Your task to perform on an android device: Go to eBay Image 0: 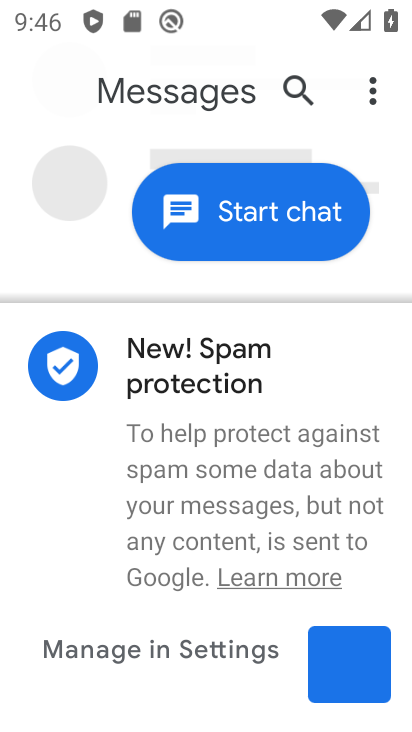
Step 0: press home button
Your task to perform on an android device: Go to eBay Image 1: 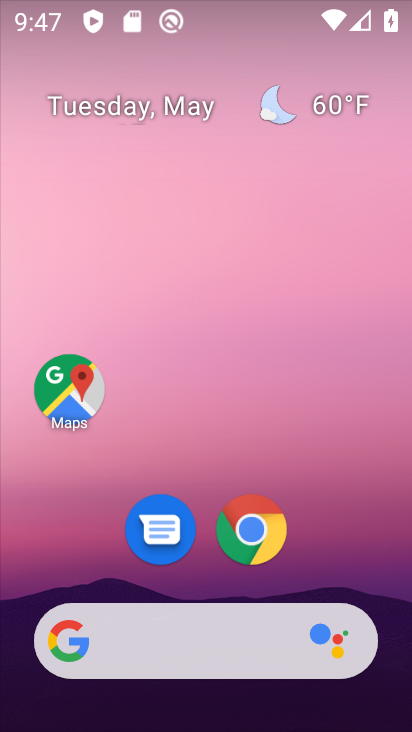
Step 1: click (249, 525)
Your task to perform on an android device: Go to eBay Image 2: 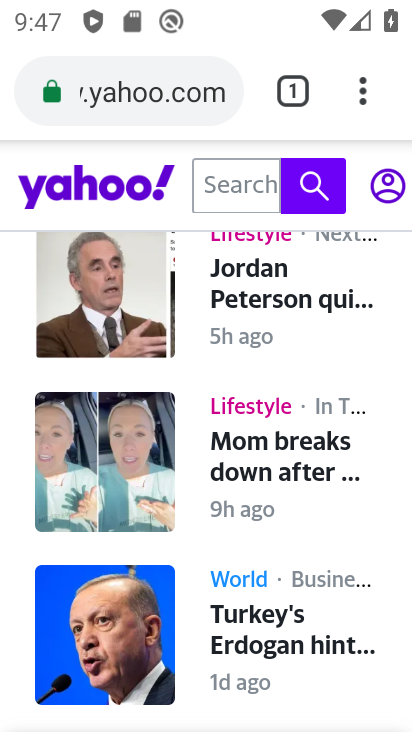
Step 2: click (284, 92)
Your task to perform on an android device: Go to eBay Image 3: 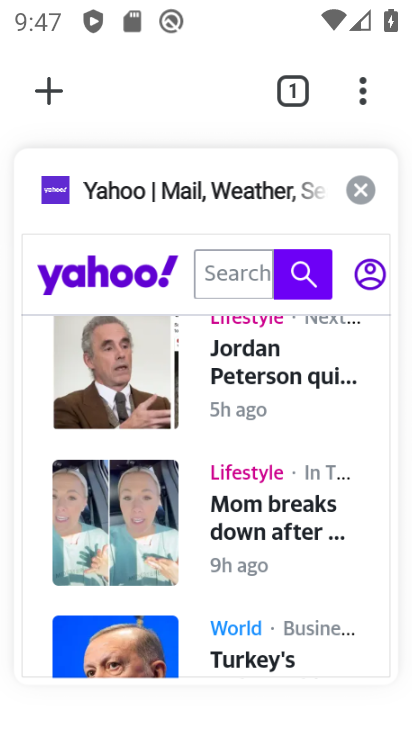
Step 3: click (364, 184)
Your task to perform on an android device: Go to eBay Image 4: 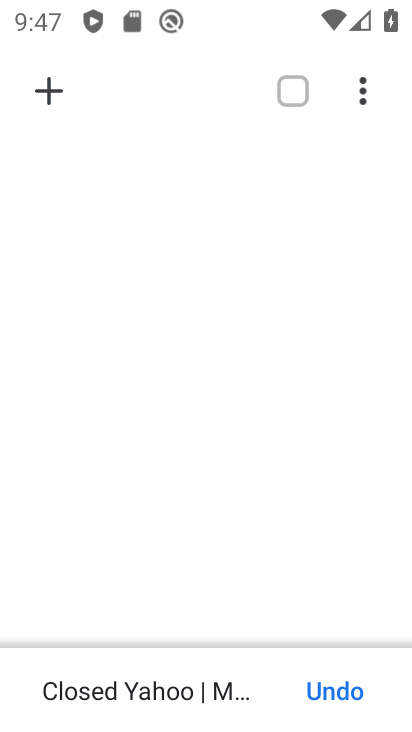
Step 4: click (39, 96)
Your task to perform on an android device: Go to eBay Image 5: 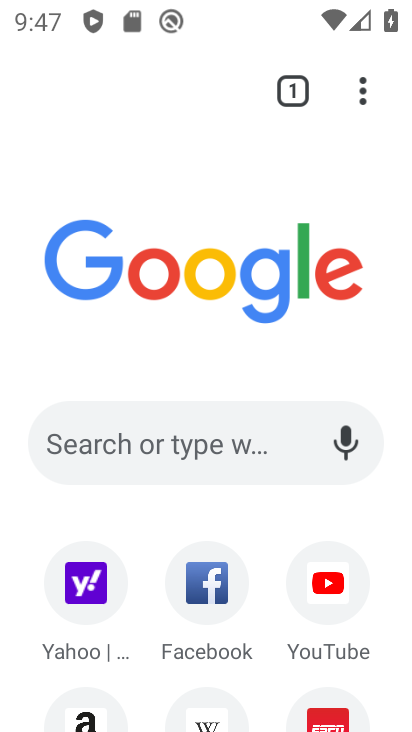
Step 5: drag from (211, 636) to (198, 462)
Your task to perform on an android device: Go to eBay Image 6: 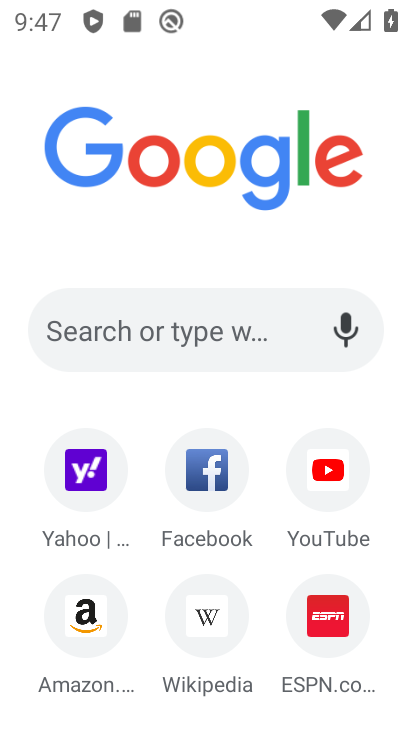
Step 6: click (76, 619)
Your task to perform on an android device: Go to eBay Image 7: 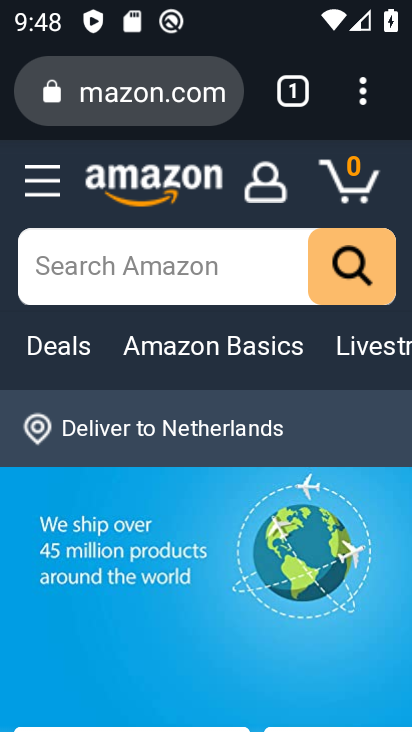
Step 7: task complete